Your task to perform on an android device: empty trash in google photos Image 0: 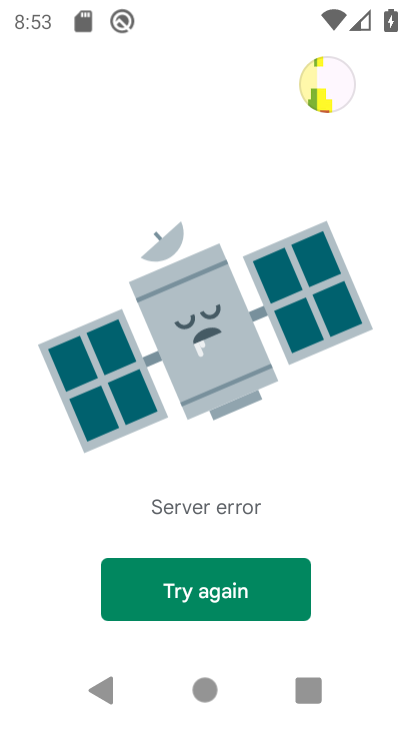
Step 0: press home button
Your task to perform on an android device: empty trash in google photos Image 1: 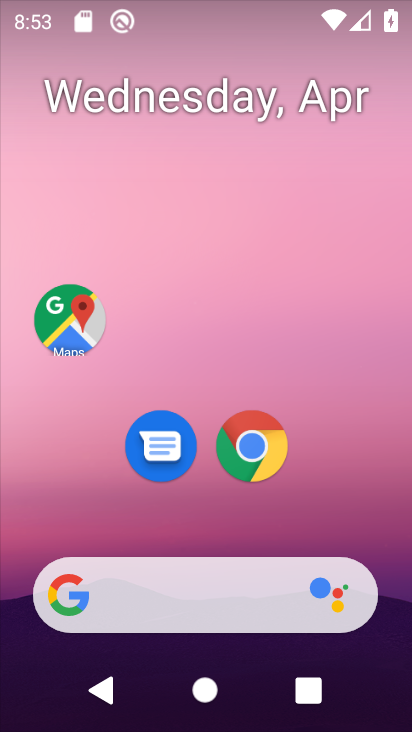
Step 1: drag from (376, 499) to (368, 140)
Your task to perform on an android device: empty trash in google photos Image 2: 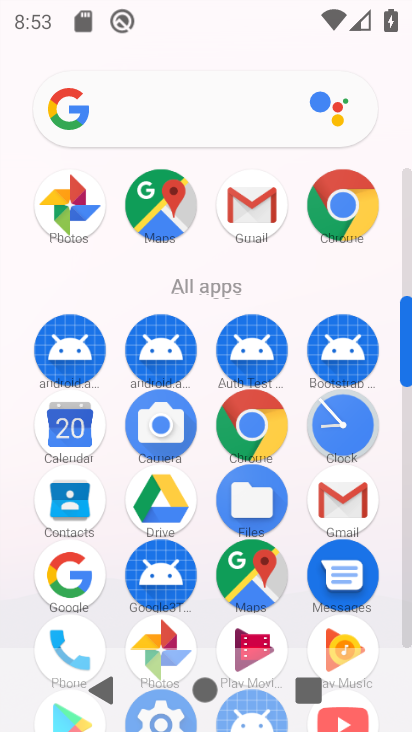
Step 2: click (160, 641)
Your task to perform on an android device: empty trash in google photos Image 3: 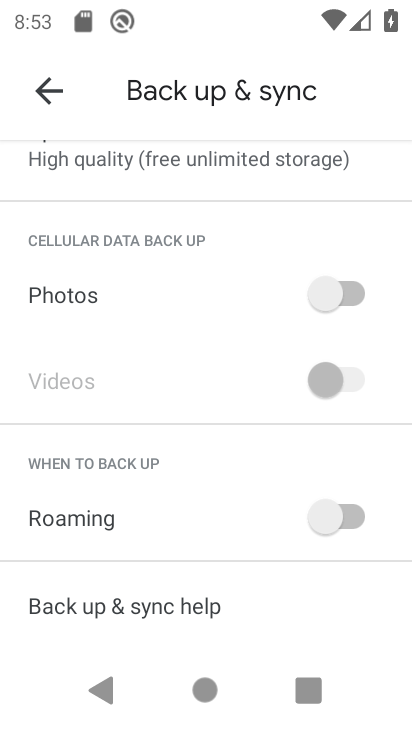
Step 3: click (48, 94)
Your task to perform on an android device: empty trash in google photos Image 4: 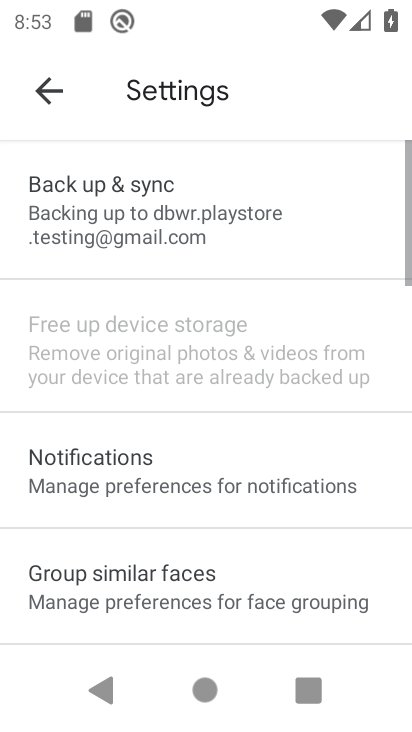
Step 4: click (49, 100)
Your task to perform on an android device: empty trash in google photos Image 5: 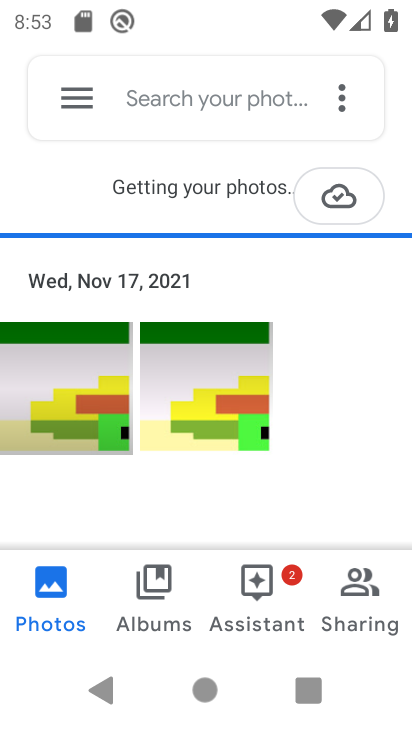
Step 5: click (67, 101)
Your task to perform on an android device: empty trash in google photos Image 6: 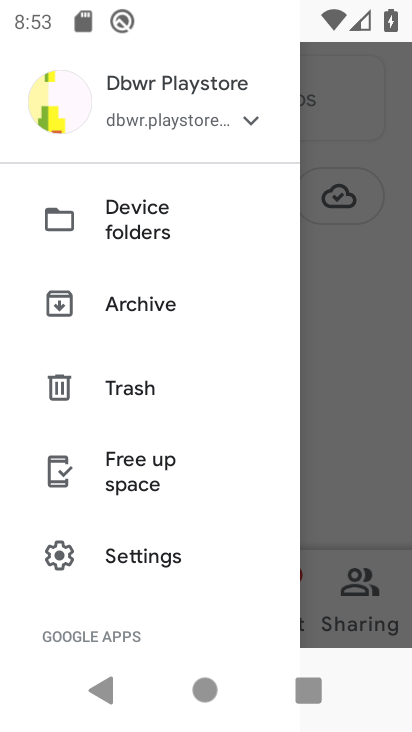
Step 6: click (106, 397)
Your task to perform on an android device: empty trash in google photos Image 7: 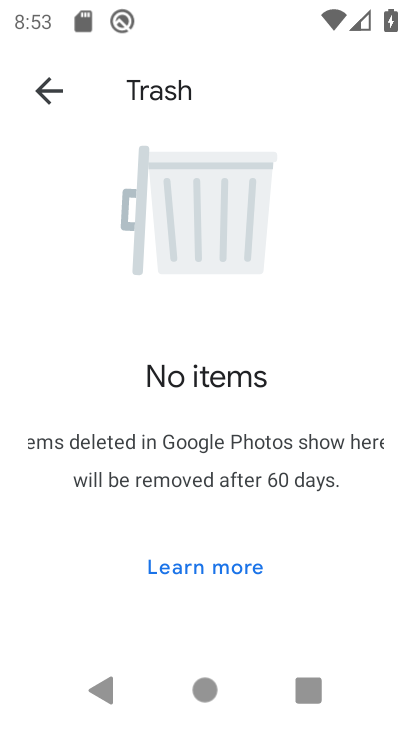
Step 7: task complete